Your task to perform on an android device: stop showing notifications on the lock screen Image 0: 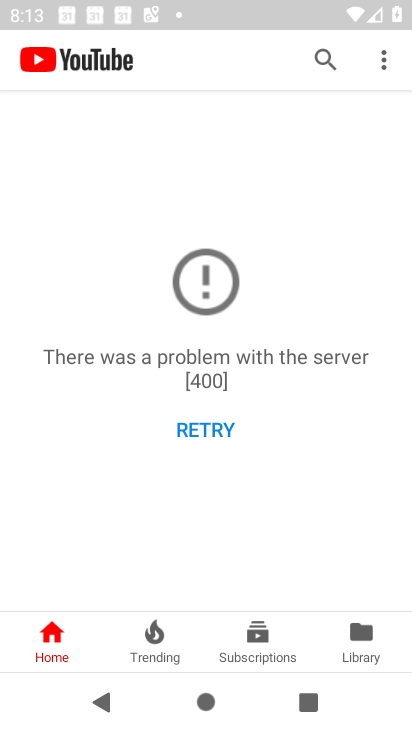
Step 0: press home button
Your task to perform on an android device: stop showing notifications on the lock screen Image 1: 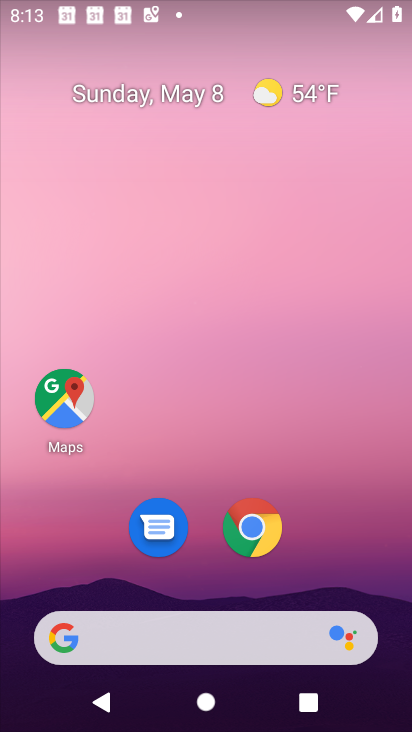
Step 1: drag from (316, 570) to (303, 45)
Your task to perform on an android device: stop showing notifications on the lock screen Image 2: 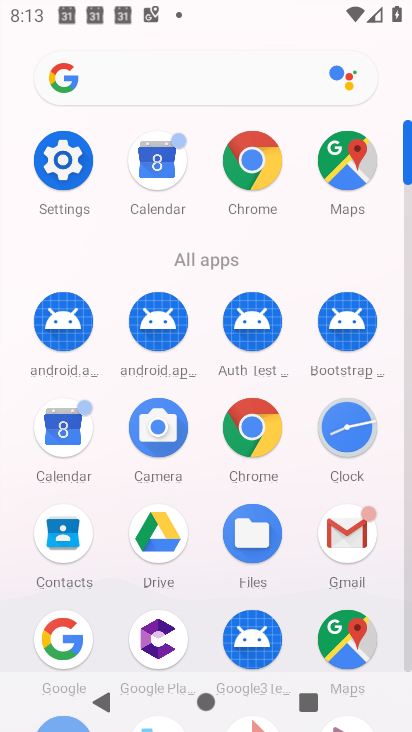
Step 2: click (54, 161)
Your task to perform on an android device: stop showing notifications on the lock screen Image 3: 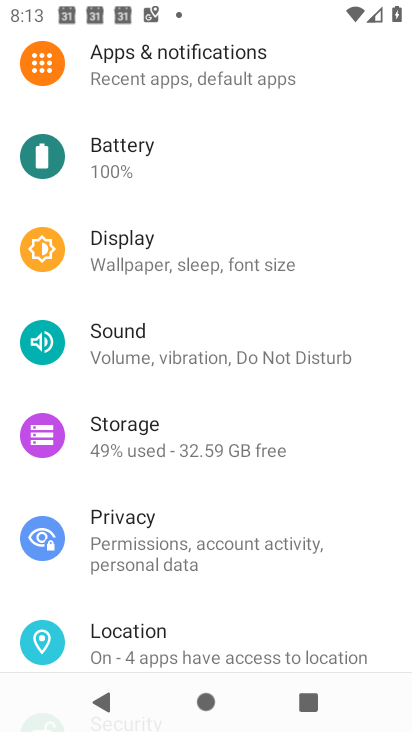
Step 3: click (244, 81)
Your task to perform on an android device: stop showing notifications on the lock screen Image 4: 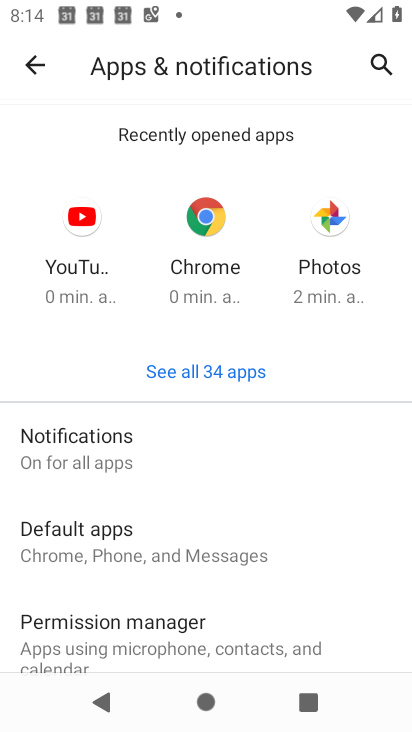
Step 4: click (175, 450)
Your task to perform on an android device: stop showing notifications on the lock screen Image 5: 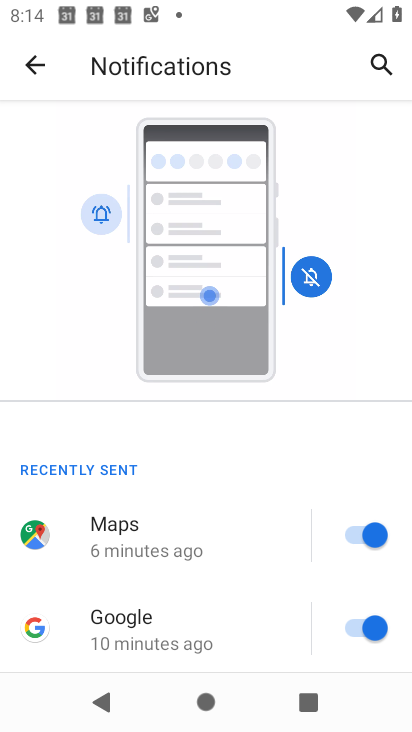
Step 5: drag from (170, 605) to (130, 344)
Your task to perform on an android device: stop showing notifications on the lock screen Image 6: 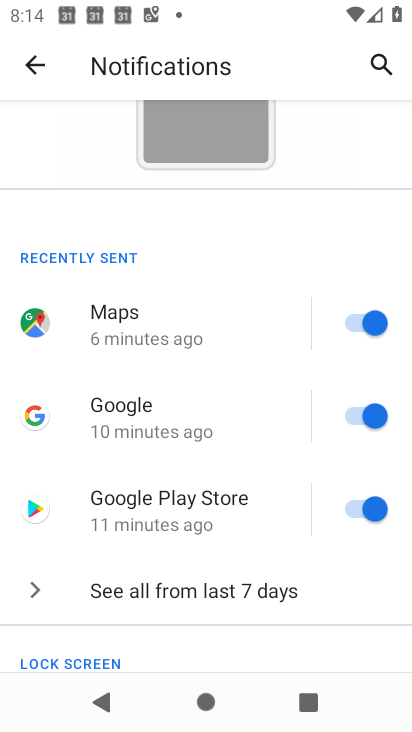
Step 6: drag from (205, 580) to (187, 279)
Your task to perform on an android device: stop showing notifications on the lock screen Image 7: 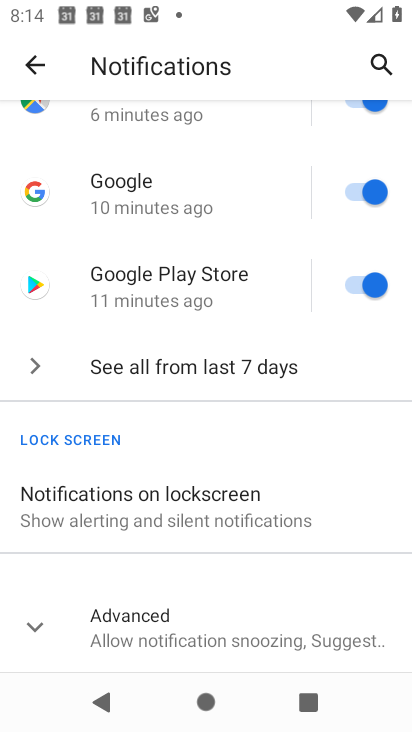
Step 7: click (201, 515)
Your task to perform on an android device: stop showing notifications on the lock screen Image 8: 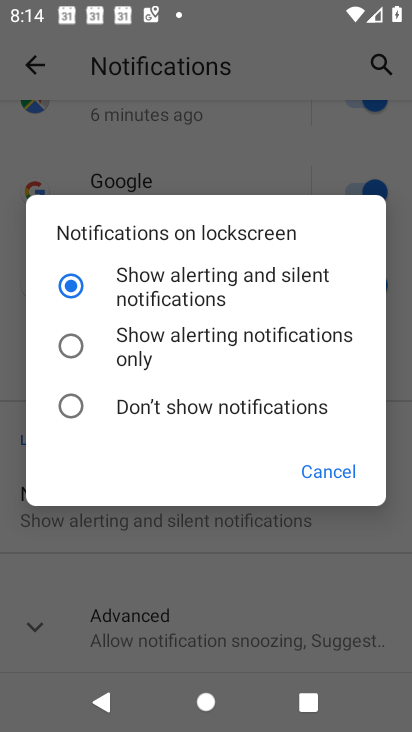
Step 8: click (159, 408)
Your task to perform on an android device: stop showing notifications on the lock screen Image 9: 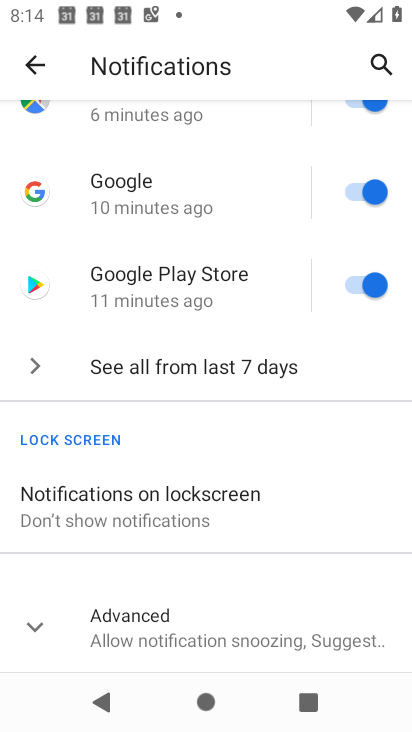
Step 9: task complete